Your task to perform on an android device: check battery use Image 0: 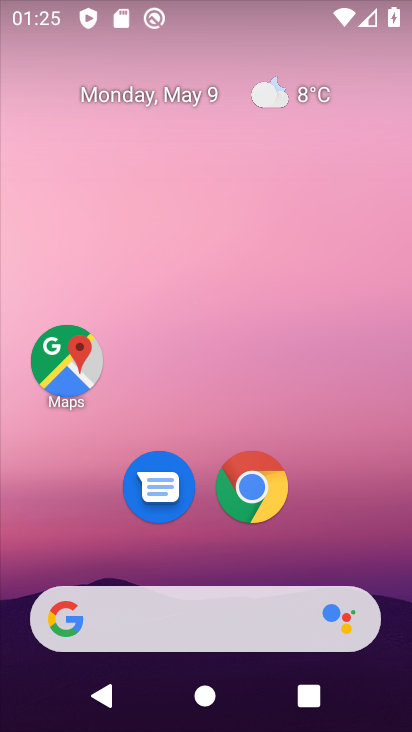
Step 0: drag from (365, 487) to (348, 4)
Your task to perform on an android device: check battery use Image 1: 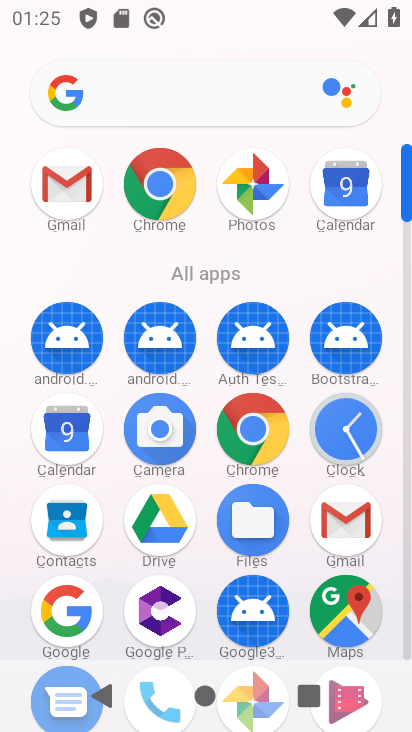
Step 1: drag from (199, 295) to (192, 17)
Your task to perform on an android device: check battery use Image 2: 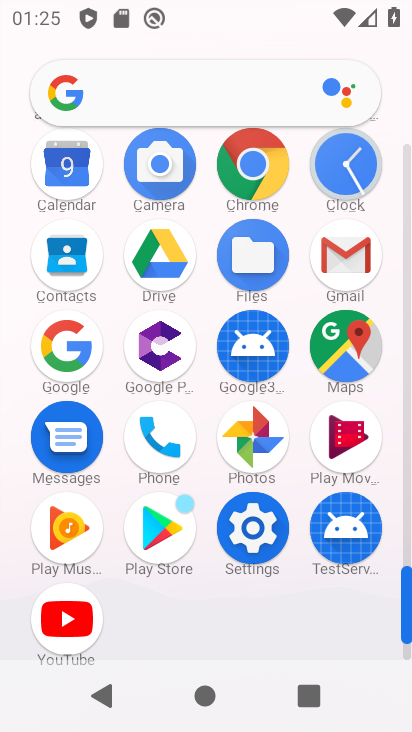
Step 2: click (253, 552)
Your task to perform on an android device: check battery use Image 3: 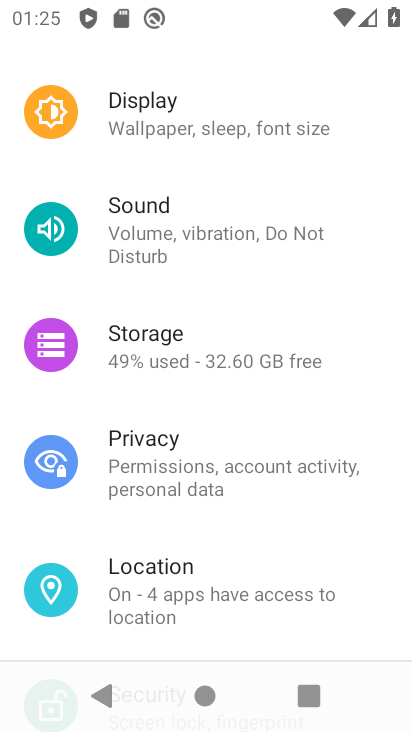
Step 3: drag from (175, 163) to (208, 443)
Your task to perform on an android device: check battery use Image 4: 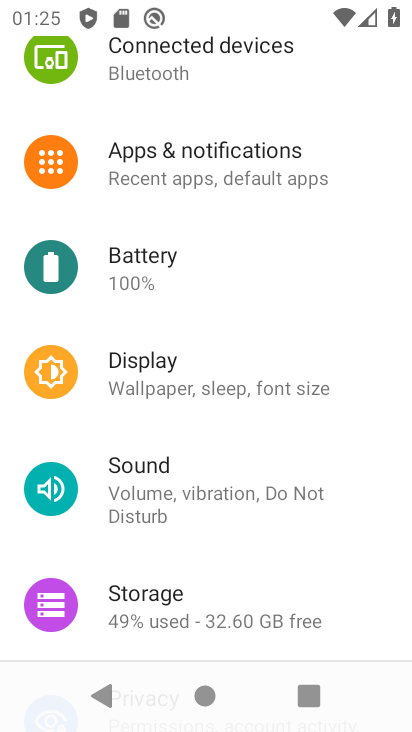
Step 4: click (178, 256)
Your task to perform on an android device: check battery use Image 5: 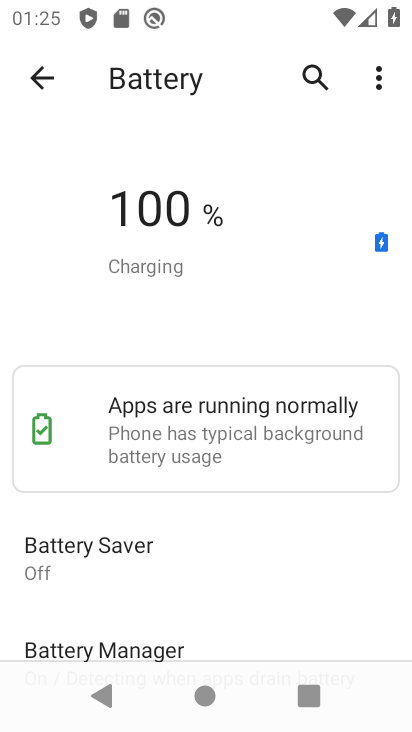
Step 5: task complete